Your task to perform on an android device: Open internet settings Image 0: 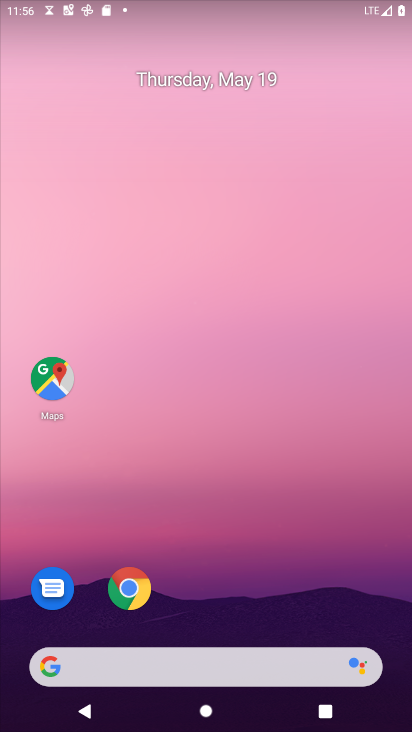
Step 0: drag from (311, 550) to (174, 33)
Your task to perform on an android device: Open internet settings Image 1: 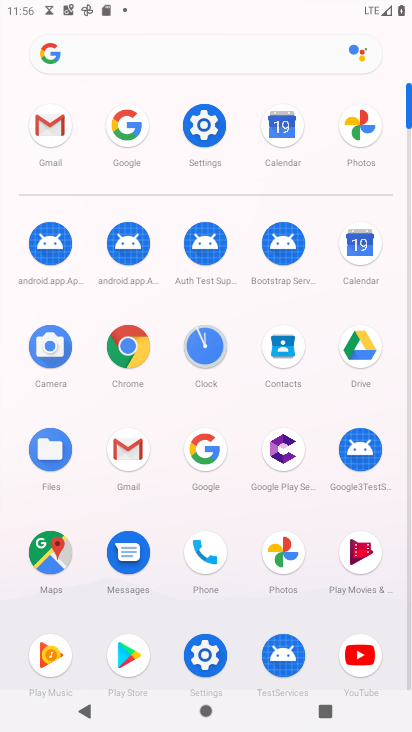
Step 1: click (201, 123)
Your task to perform on an android device: Open internet settings Image 2: 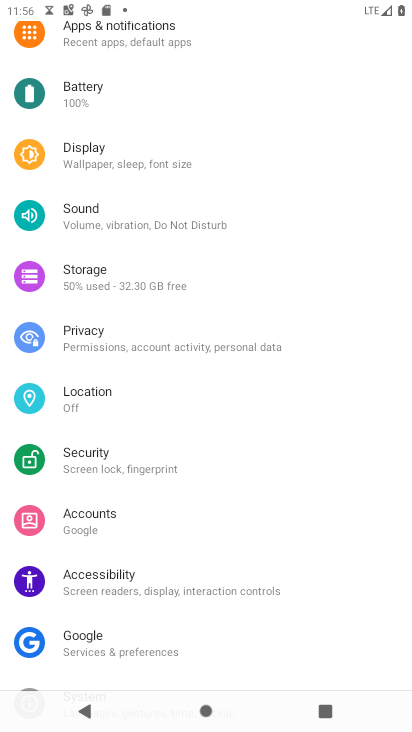
Step 2: drag from (226, 99) to (254, 585)
Your task to perform on an android device: Open internet settings Image 3: 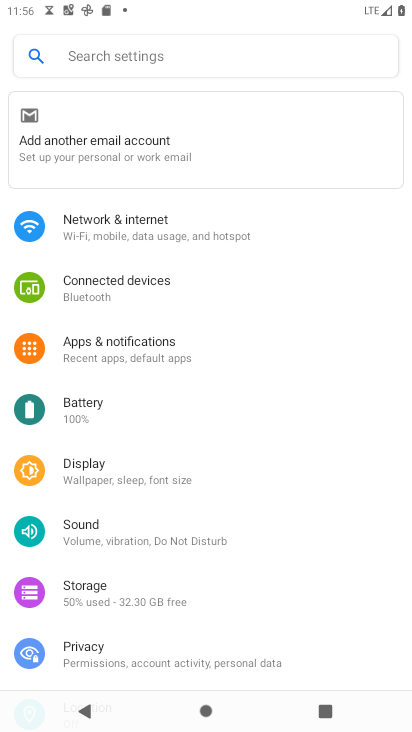
Step 3: click (189, 231)
Your task to perform on an android device: Open internet settings Image 4: 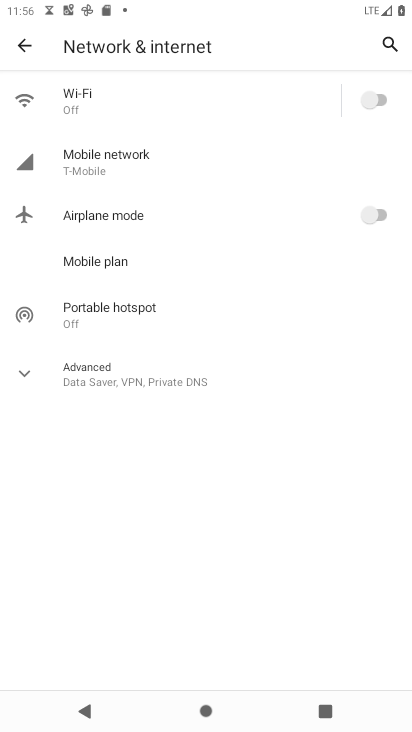
Step 4: task complete